Your task to perform on an android device: allow notifications from all sites in the chrome app Image 0: 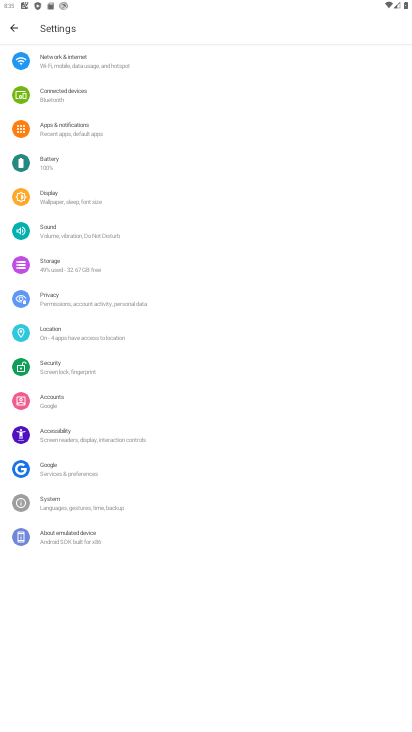
Step 0: press home button
Your task to perform on an android device: allow notifications from all sites in the chrome app Image 1: 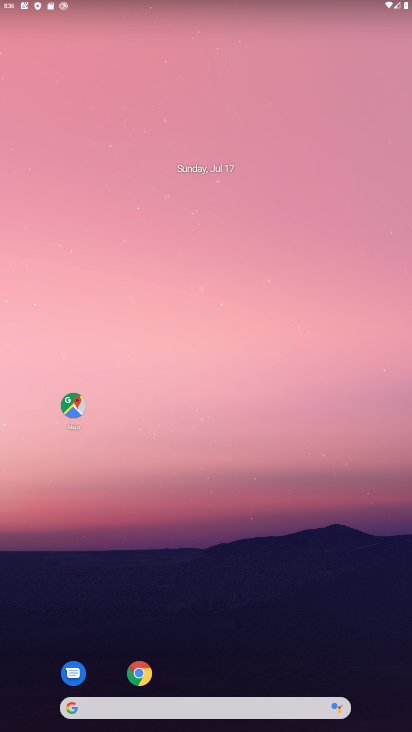
Step 1: drag from (327, 601) to (284, 121)
Your task to perform on an android device: allow notifications from all sites in the chrome app Image 2: 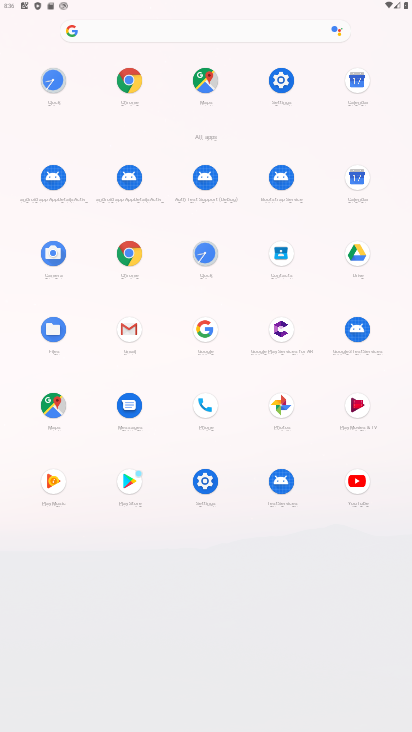
Step 2: click (134, 245)
Your task to perform on an android device: allow notifications from all sites in the chrome app Image 3: 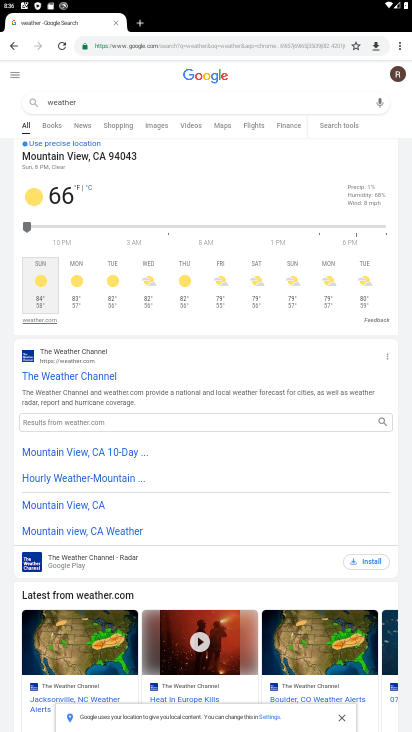
Step 3: drag from (401, 44) to (307, 279)
Your task to perform on an android device: allow notifications from all sites in the chrome app Image 4: 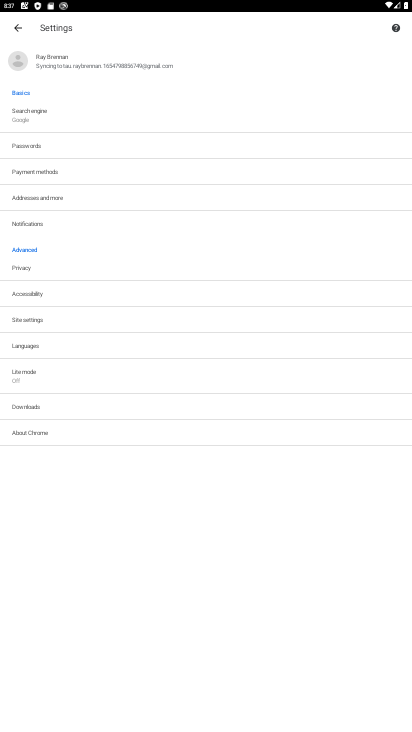
Step 4: click (41, 316)
Your task to perform on an android device: allow notifications from all sites in the chrome app Image 5: 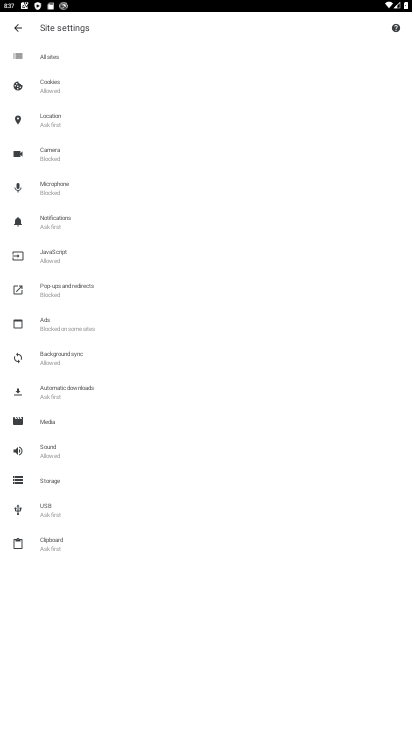
Step 5: click (42, 220)
Your task to perform on an android device: allow notifications from all sites in the chrome app Image 6: 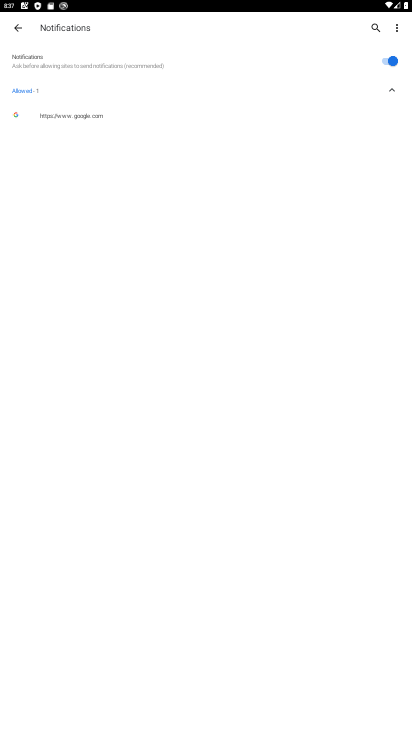
Step 6: task complete